Your task to perform on an android device: Add razer blade to the cart on newegg Image 0: 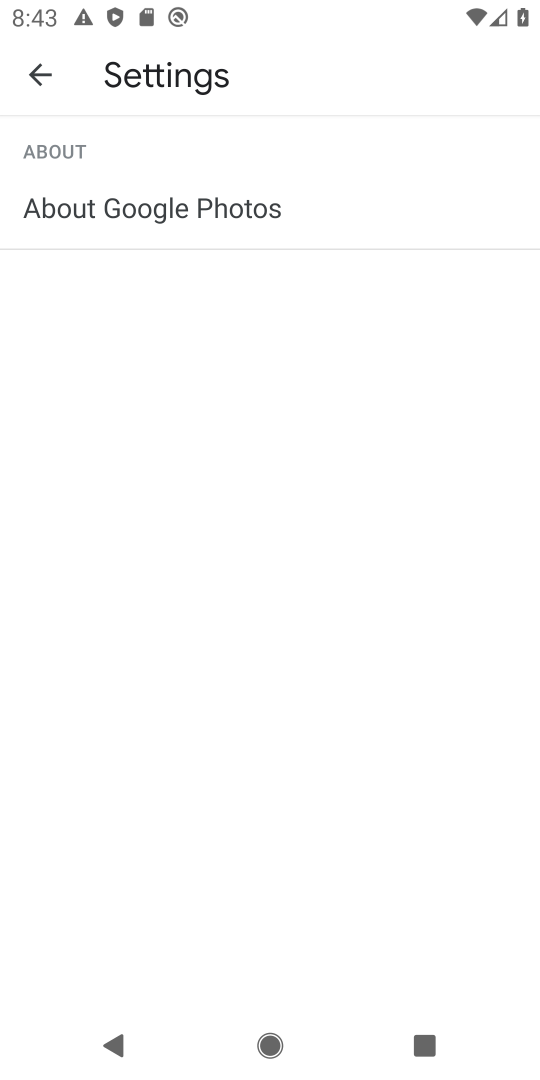
Step 0: press home button
Your task to perform on an android device: Add razer blade to the cart on newegg Image 1: 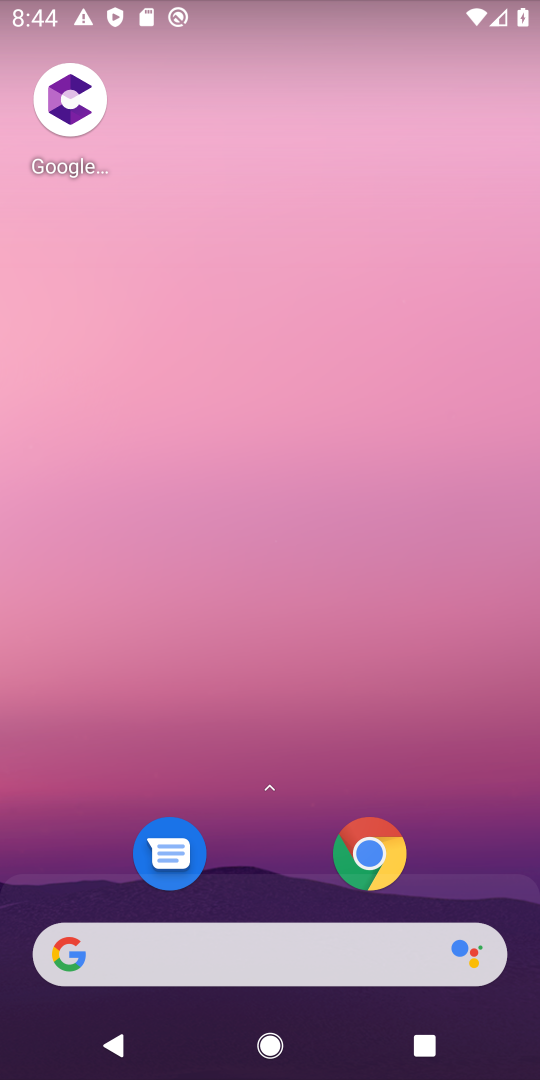
Step 1: click (287, 993)
Your task to perform on an android device: Add razer blade to the cart on newegg Image 2: 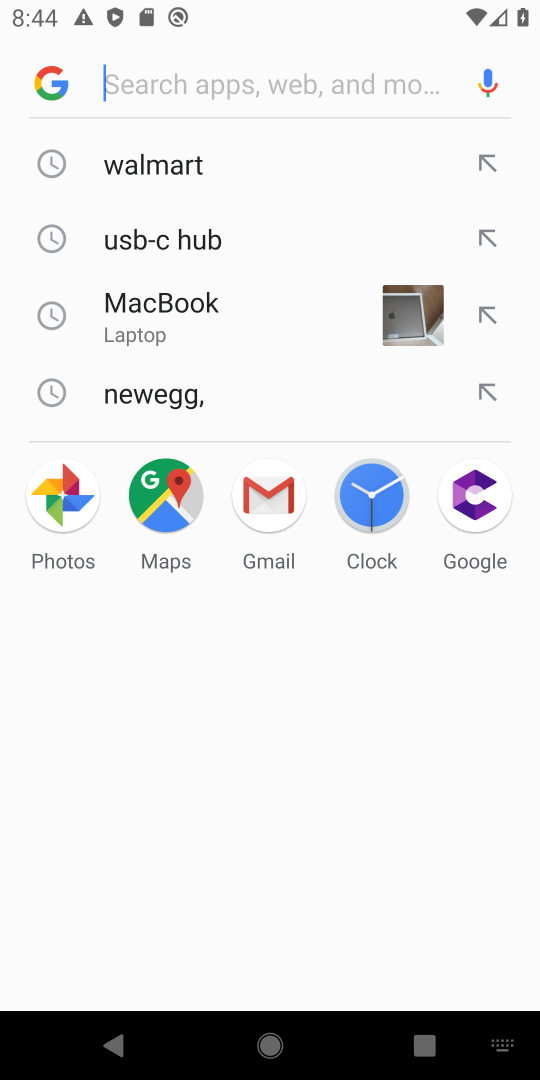
Step 2: click (167, 390)
Your task to perform on an android device: Add razer blade to the cart on newegg Image 3: 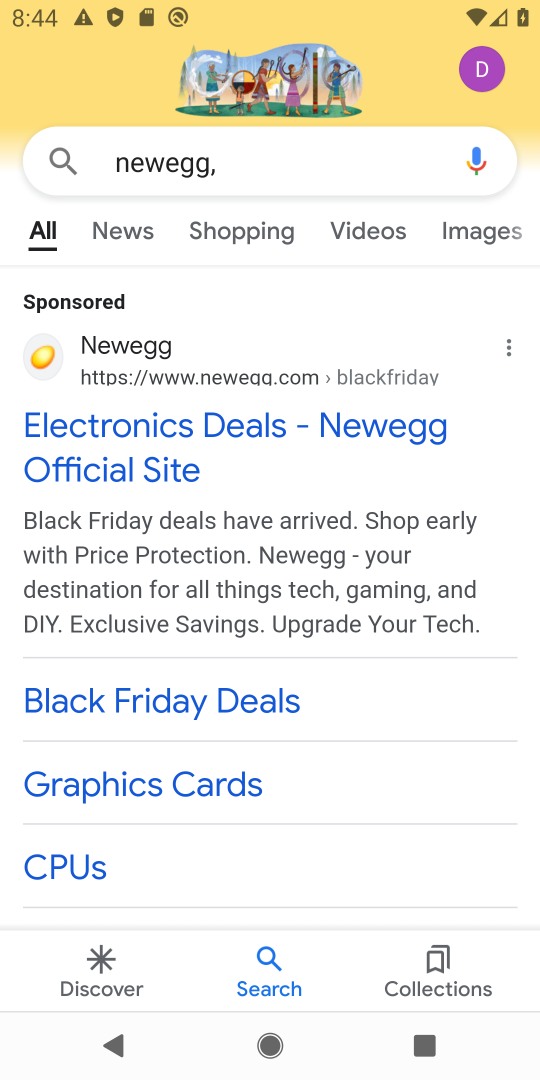
Step 3: click (240, 431)
Your task to perform on an android device: Add razer blade to the cart on newegg Image 4: 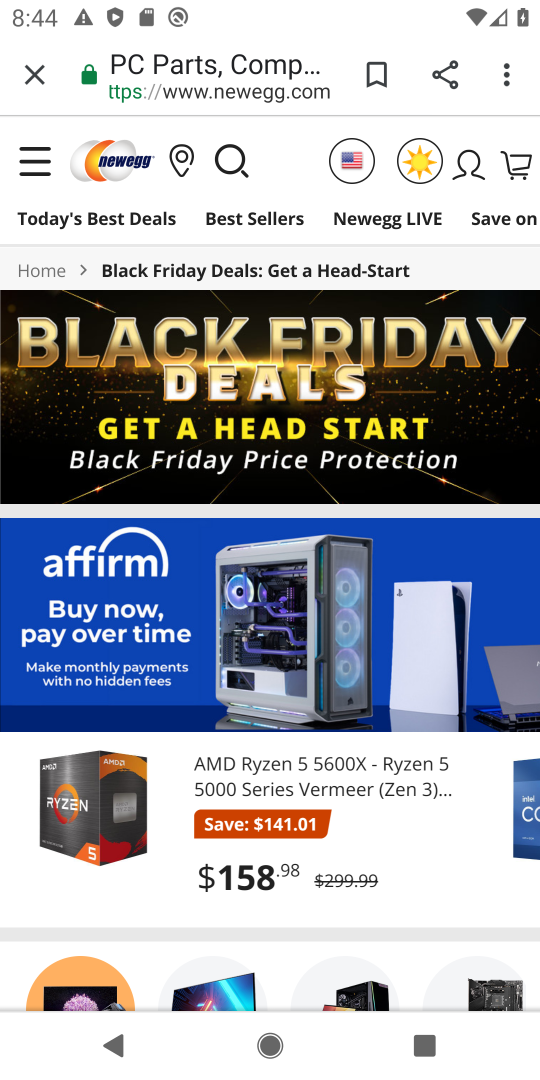
Step 4: click (222, 171)
Your task to perform on an android device: Add razer blade to the cart on newegg Image 5: 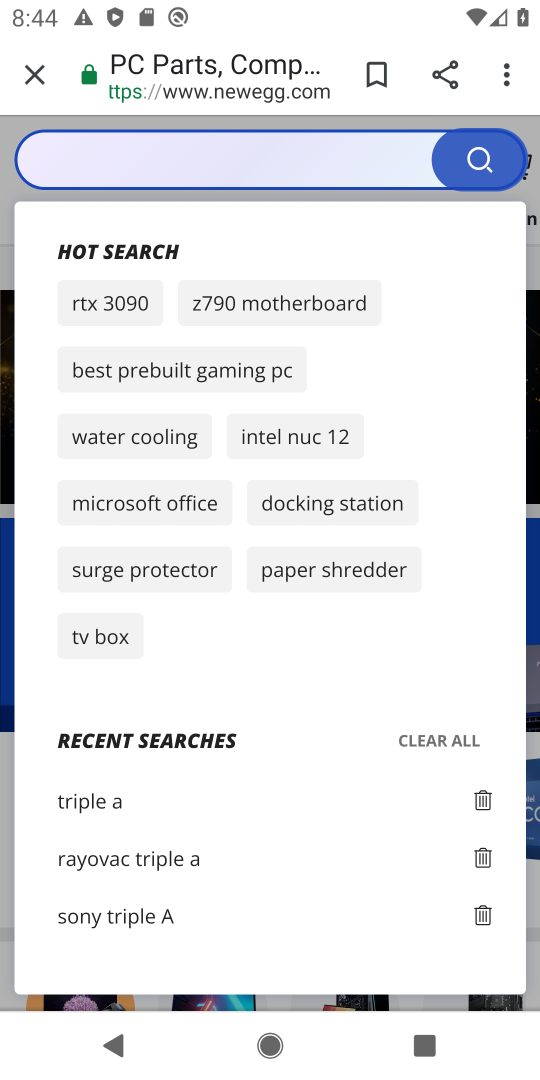
Step 5: click (242, 172)
Your task to perform on an android device: Add razer blade to the cart on newegg Image 6: 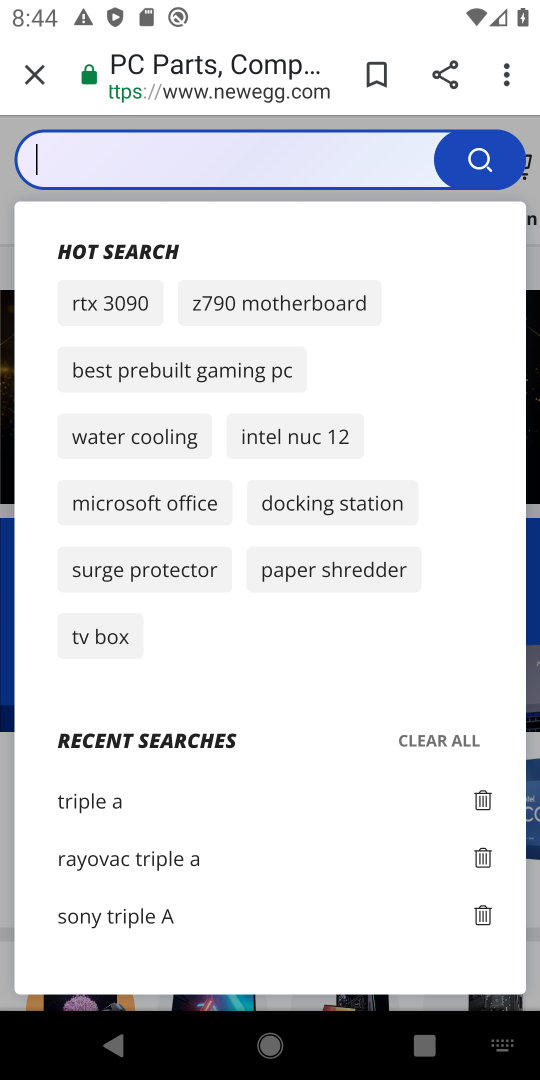
Step 6: type "razer blade"
Your task to perform on an android device: Add razer blade to the cart on newegg Image 7: 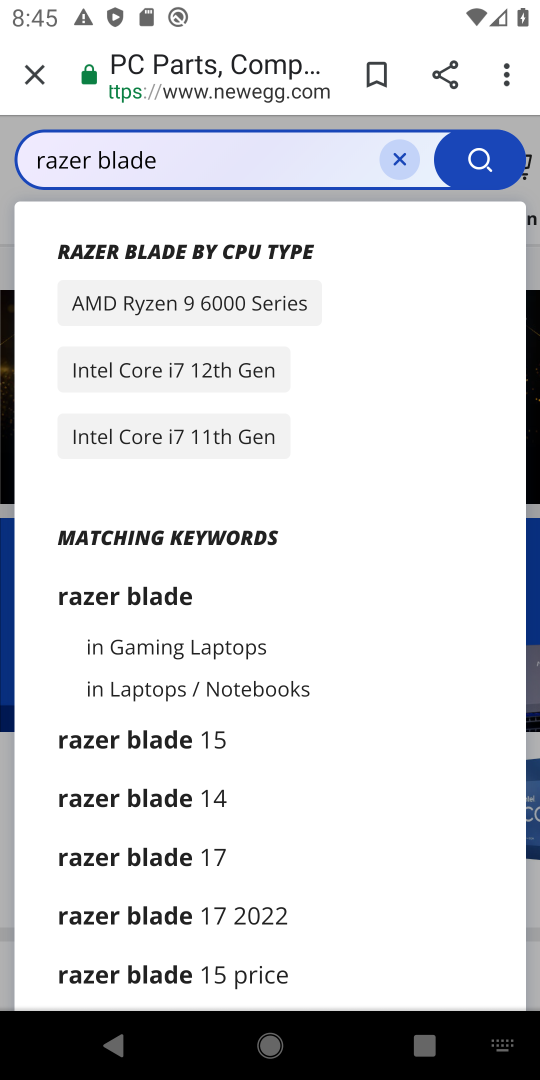
Step 7: click (477, 176)
Your task to perform on an android device: Add razer blade to the cart on newegg Image 8: 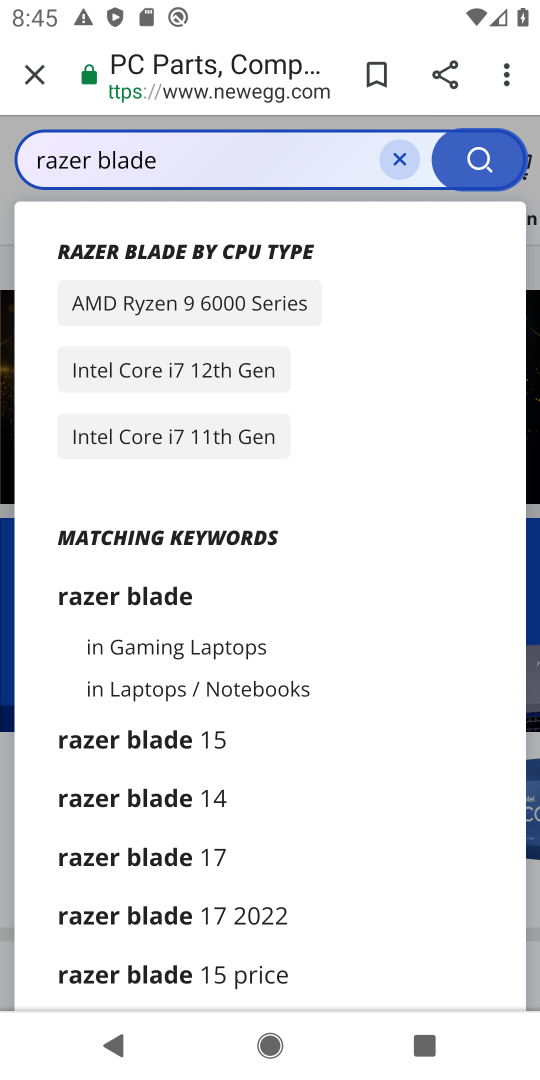
Step 8: click (497, 167)
Your task to perform on an android device: Add razer blade to the cart on newegg Image 9: 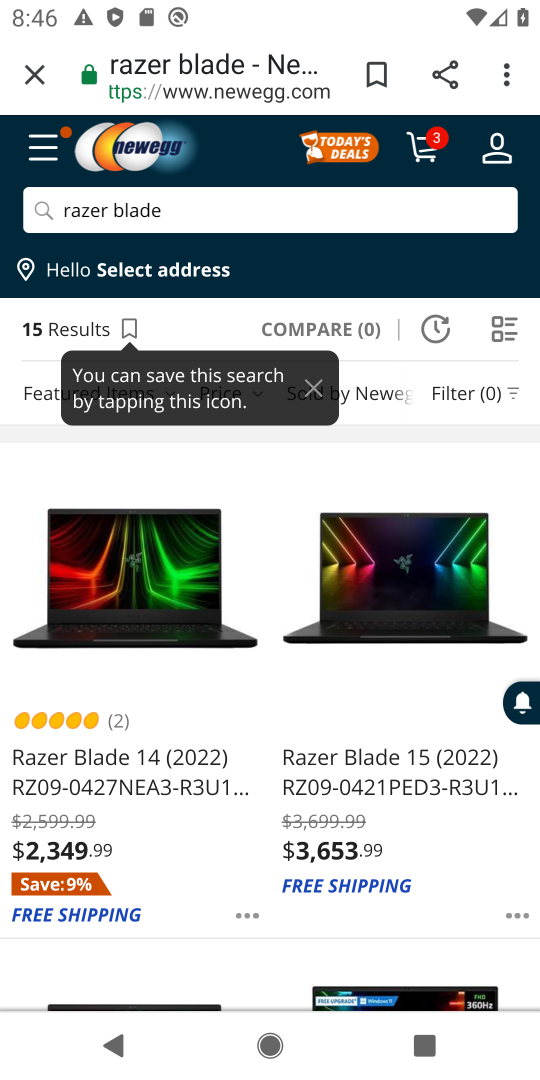
Step 9: task complete